Your task to perform on an android device: Go to privacy settings Image 0: 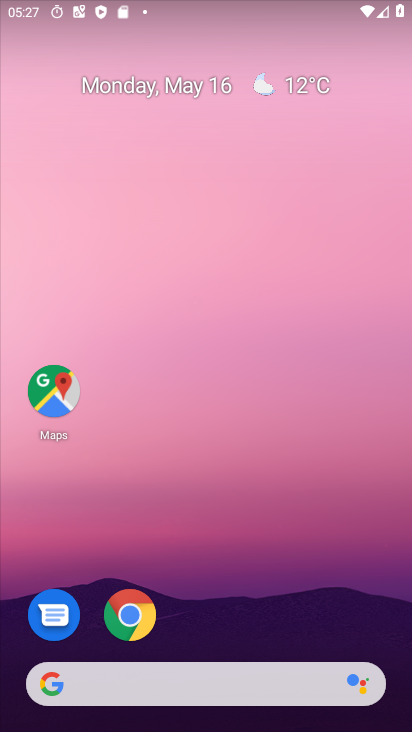
Step 0: drag from (274, 667) to (165, 102)
Your task to perform on an android device: Go to privacy settings Image 1: 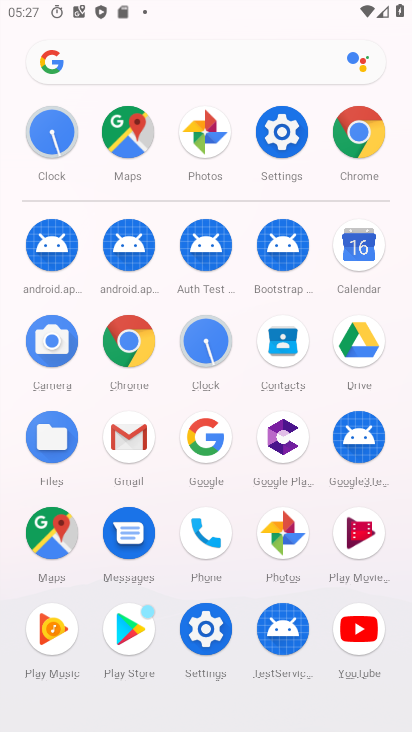
Step 1: click (207, 636)
Your task to perform on an android device: Go to privacy settings Image 2: 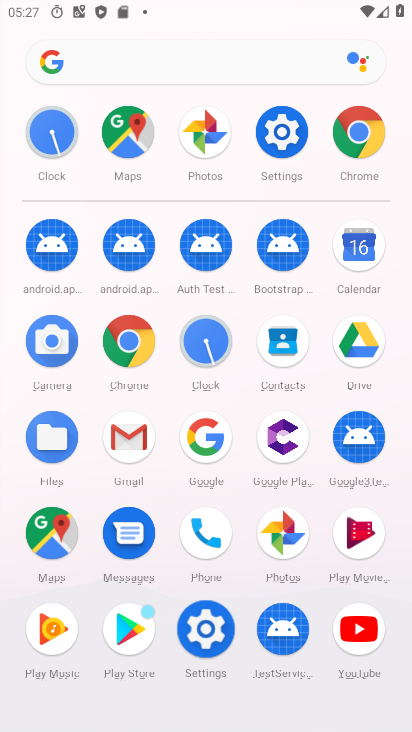
Step 2: click (207, 636)
Your task to perform on an android device: Go to privacy settings Image 3: 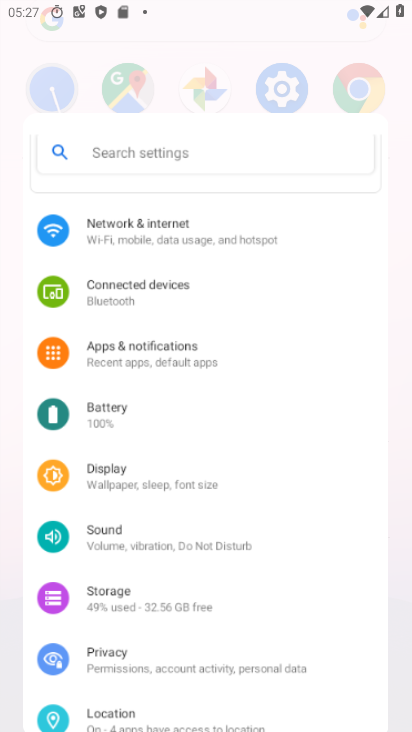
Step 3: click (208, 635)
Your task to perform on an android device: Go to privacy settings Image 4: 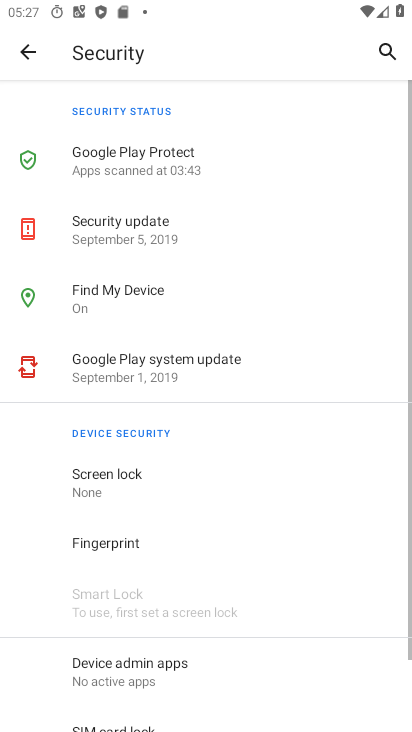
Step 4: click (28, 63)
Your task to perform on an android device: Go to privacy settings Image 5: 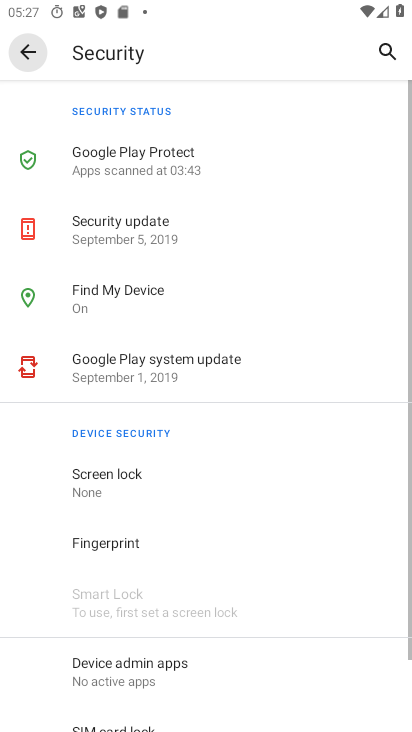
Step 5: click (30, 57)
Your task to perform on an android device: Go to privacy settings Image 6: 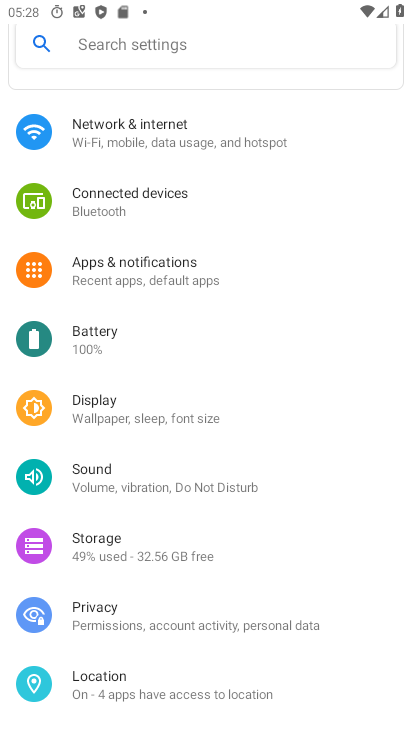
Step 6: drag from (142, 497) to (83, 1)
Your task to perform on an android device: Go to privacy settings Image 7: 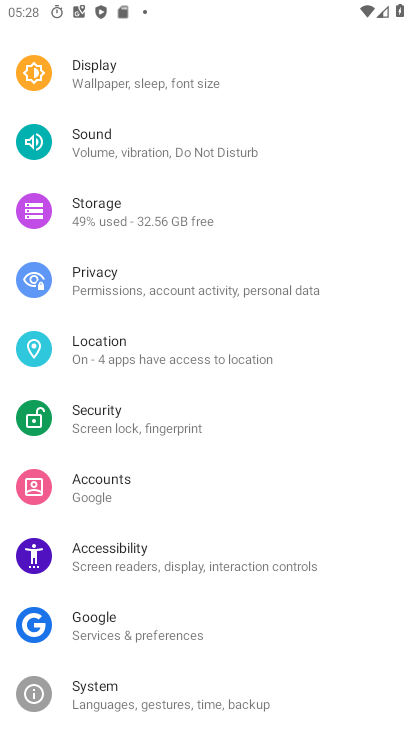
Step 7: drag from (179, 392) to (111, 93)
Your task to perform on an android device: Go to privacy settings Image 8: 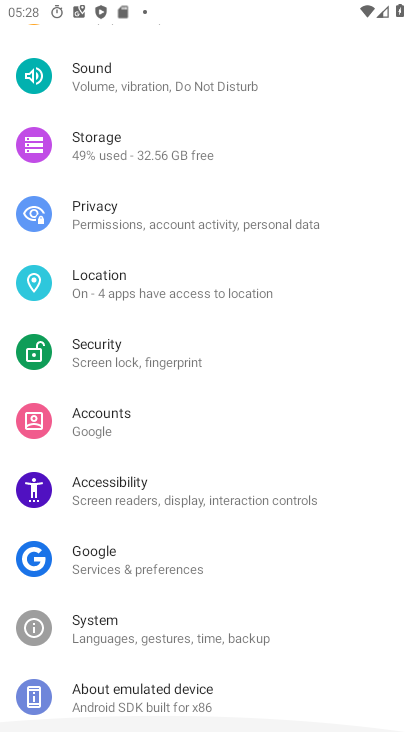
Step 8: drag from (159, 395) to (121, 158)
Your task to perform on an android device: Go to privacy settings Image 9: 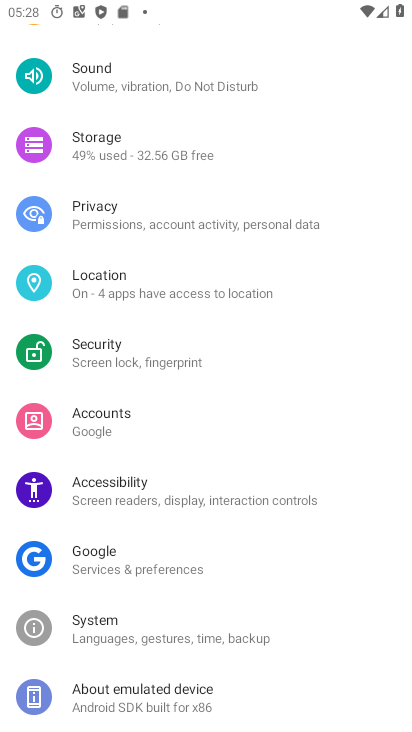
Step 9: click (96, 219)
Your task to perform on an android device: Go to privacy settings Image 10: 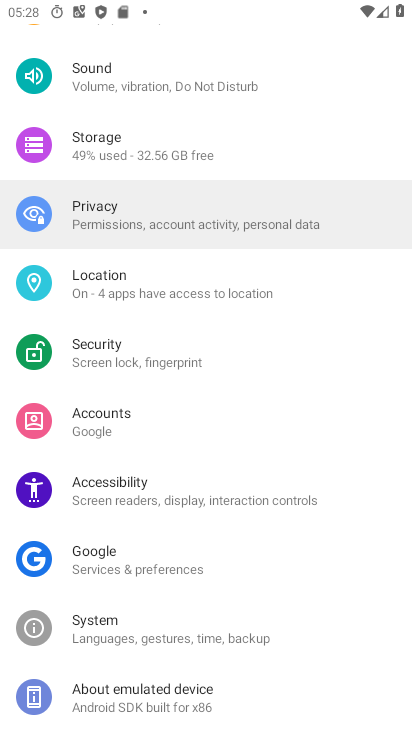
Step 10: click (96, 219)
Your task to perform on an android device: Go to privacy settings Image 11: 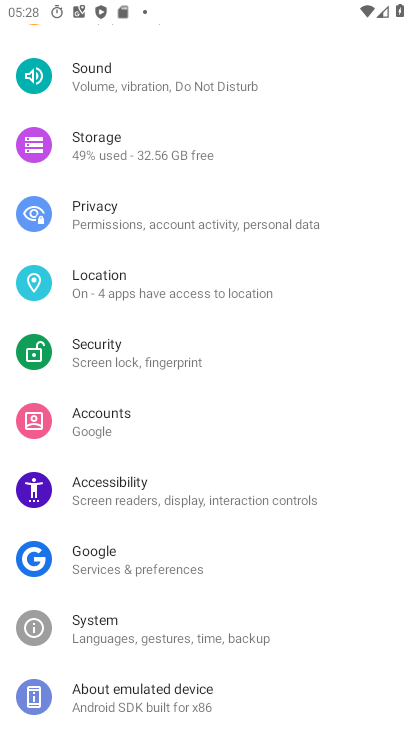
Step 11: click (96, 219)
Your task to perform on an android device: Go to privacy settings Image 12: 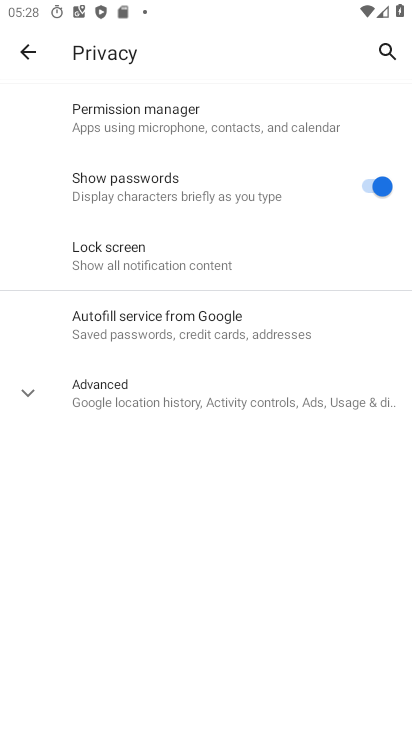
Step 12: task complete